Your task to perform on an android device: turn pop-ups off in chrome Image 0: 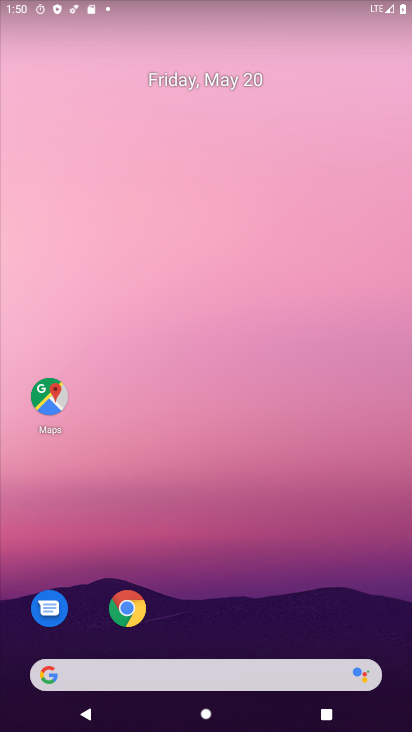
Step 0: click (127, 608)
Your task to perform on an android device: turn pop-ups off in chrome Image 1: 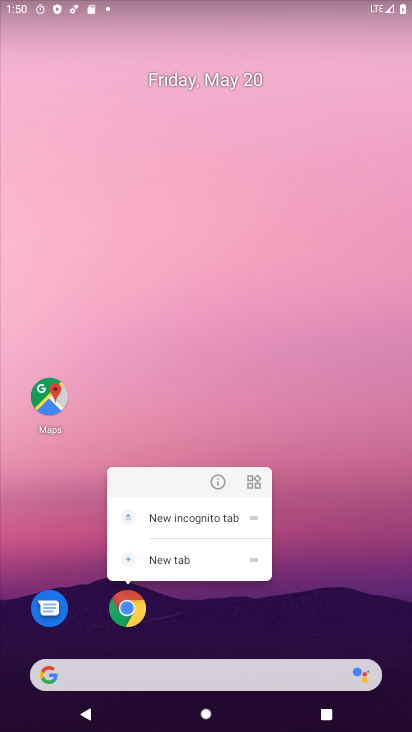
Step 1: click (215, 477)
Your task to perform on an android device: turn pop-ups off in chrome Image 2: 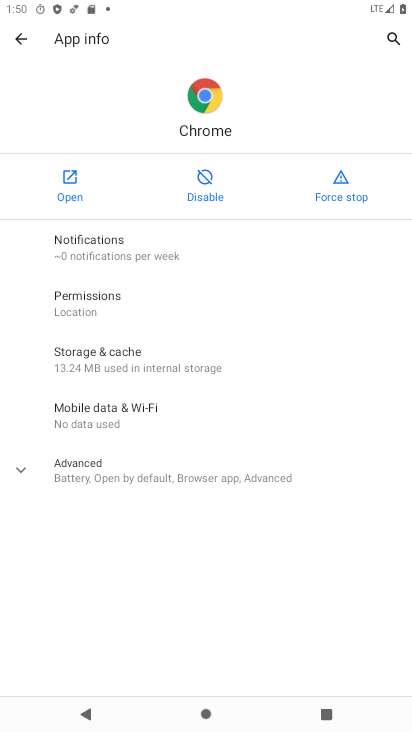
Step 2: click (191, 480)
Your task to perform on an android device: turn pop-ups off in chrome Image 3: 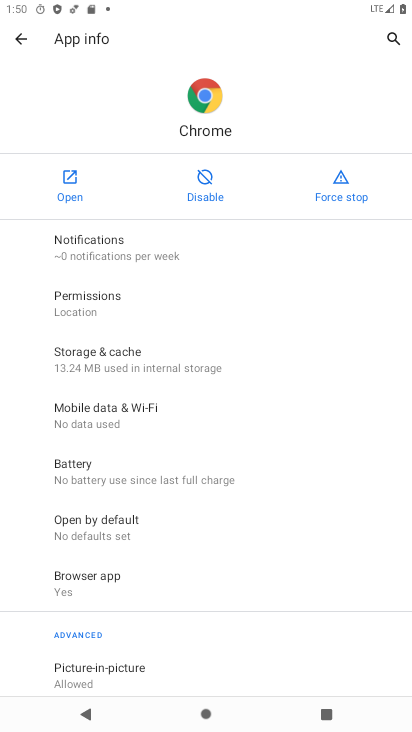
Step 3: drag from (123, 624) to (179, 543)
Your task to perform on an android device: turn pop-ups off in chrome Image 4: 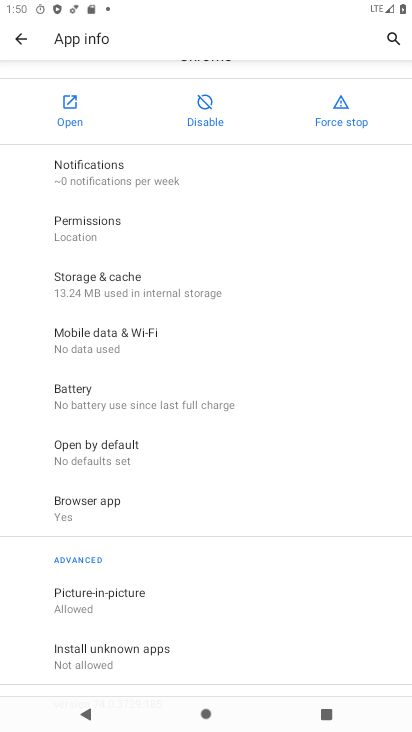
Step 4: click (142, 600)
Your task to perform on an android device: turn pop-ups off in chrome Image 5: 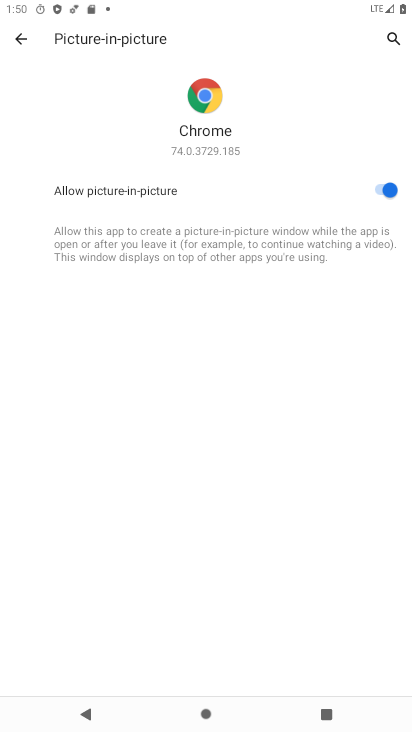
Step 5: click (397, 188)
Your task to perform on an android device: turn pop-ups off in chrome Image 6: 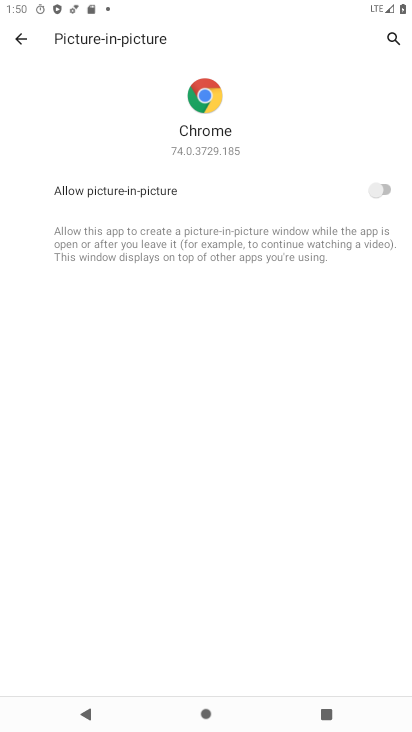
Step 6: task complete